Your task to perform on an android device: empty trash in google photos Image 0: 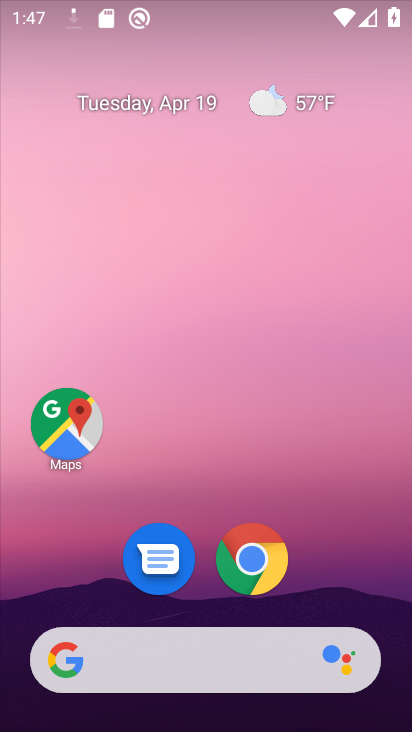
Step 0: press home button
Your task to perform on an android device: empty trash in google photos Image 1: 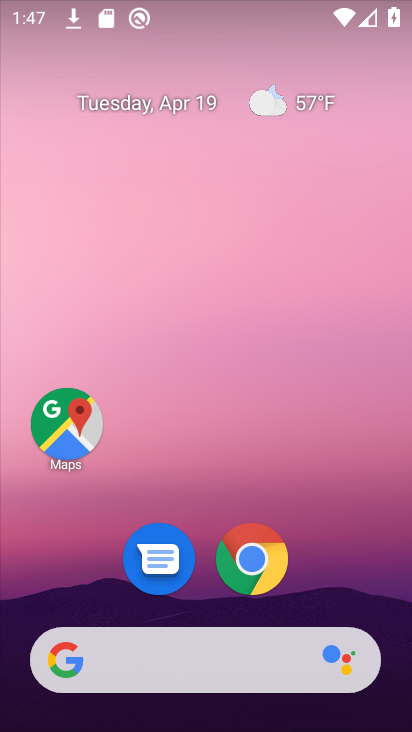
Step 1: drag from (211, 596) to (207, 198)
Your task to perform on an android device: empty trash in google photos Image 2: 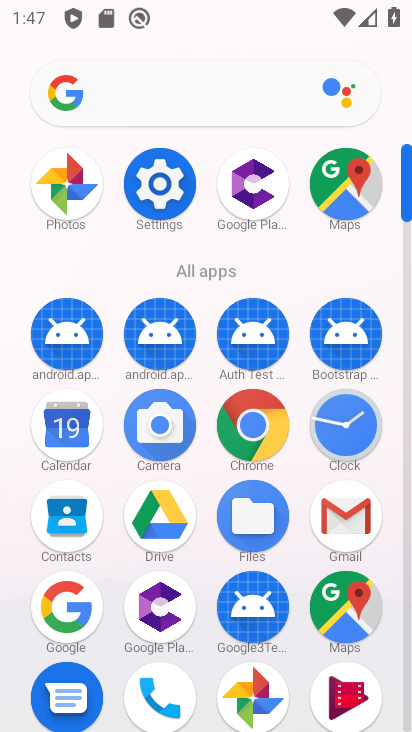
Step 2: click (248, 678)
Your task to perform on an android device: empty trash in google photos Image 3: 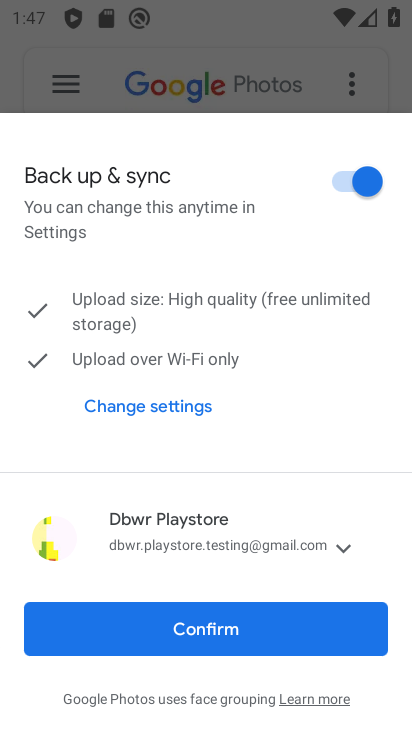
Step 3: click (202, 633)
Your task to perform on an android device: empty trash in google photos Image 4: 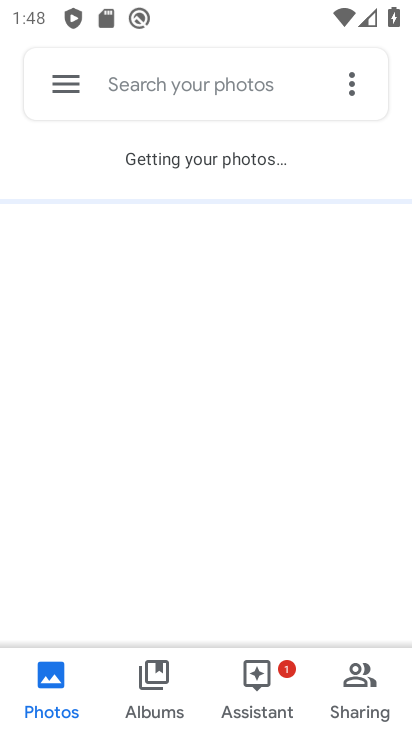
Step 4: click (55, 80)
Your task to perform on an android device: empty trash in google photos Image 5: 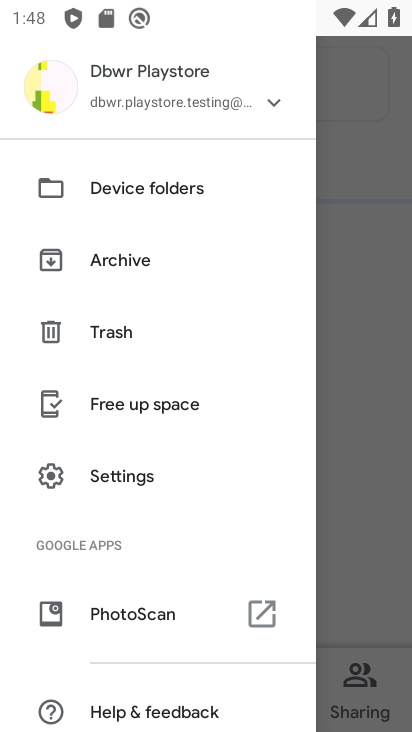
Step 5: click (77, 331)
Your task to perform on an android device: empty trash in google photos Image 6: 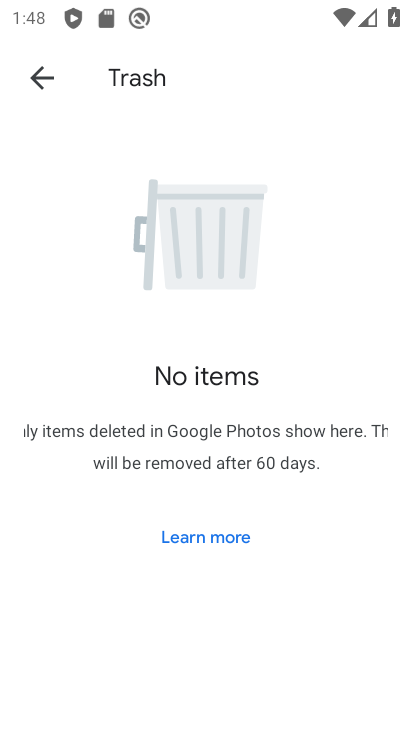
Step 6: task complete